Your task to perform on an android device: What's the news in Bangladesh? Image 0: 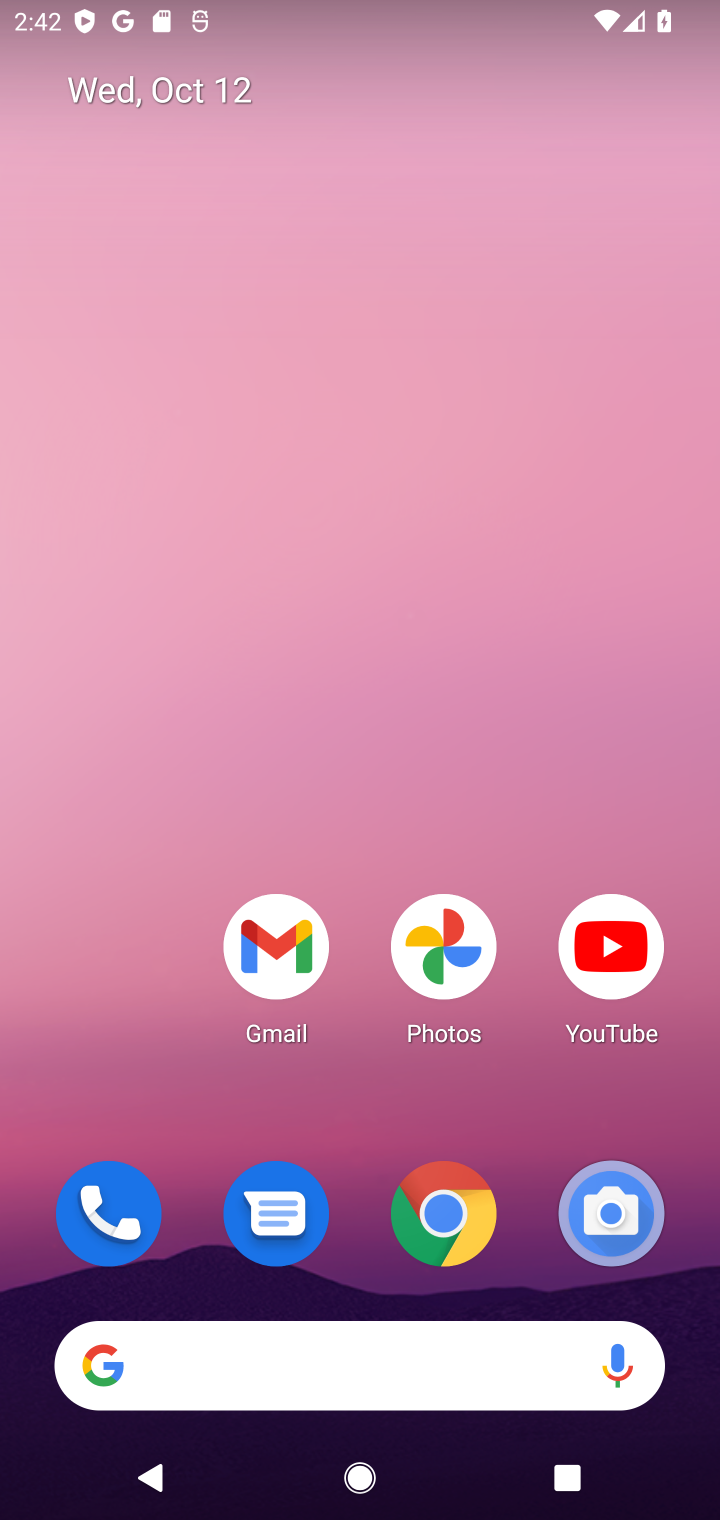
Step 0: click (398, 1361)
Your task to perform on an android device: What's the news in Bangladesh? Image 1: 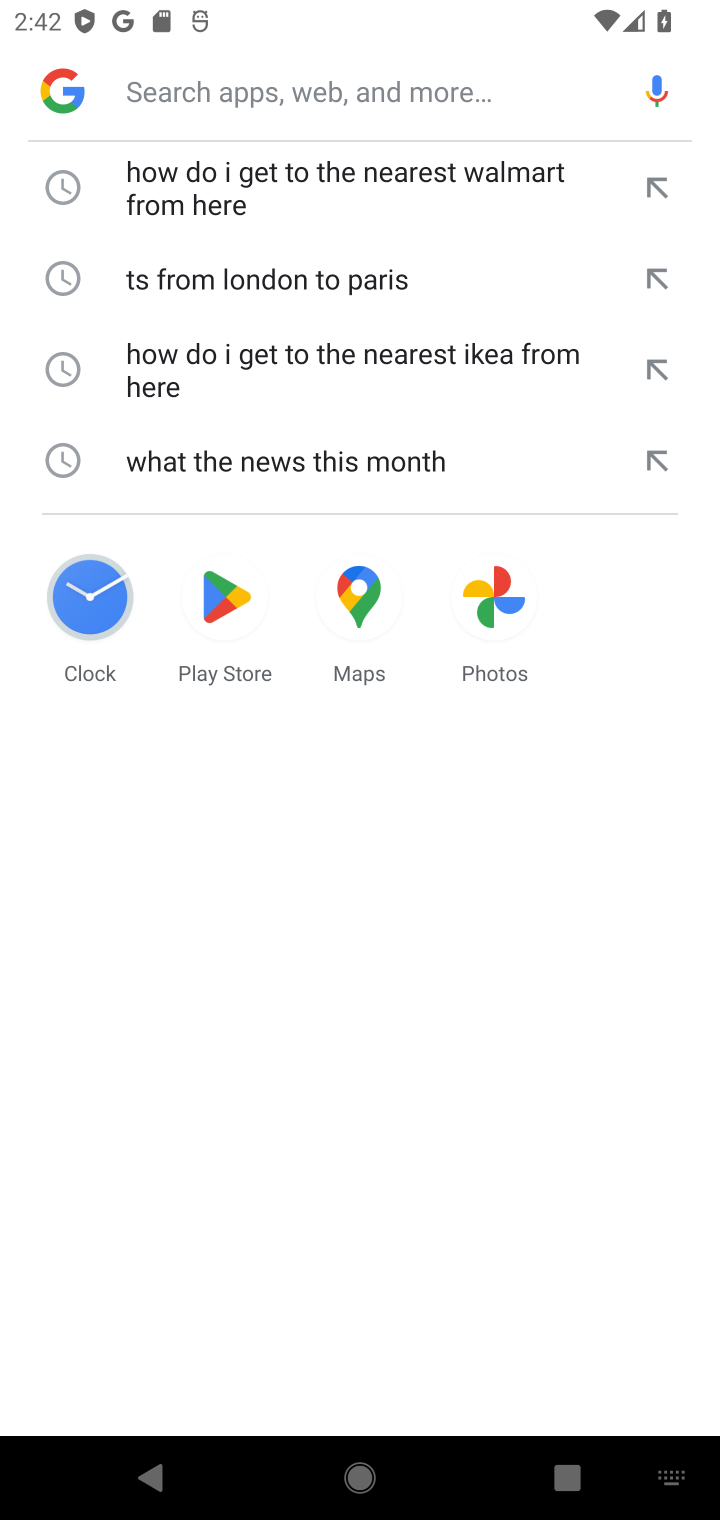
Step 1: click (258, 84)
Your task to perform on an android device: What's the news in Bangladesh? Image 2: 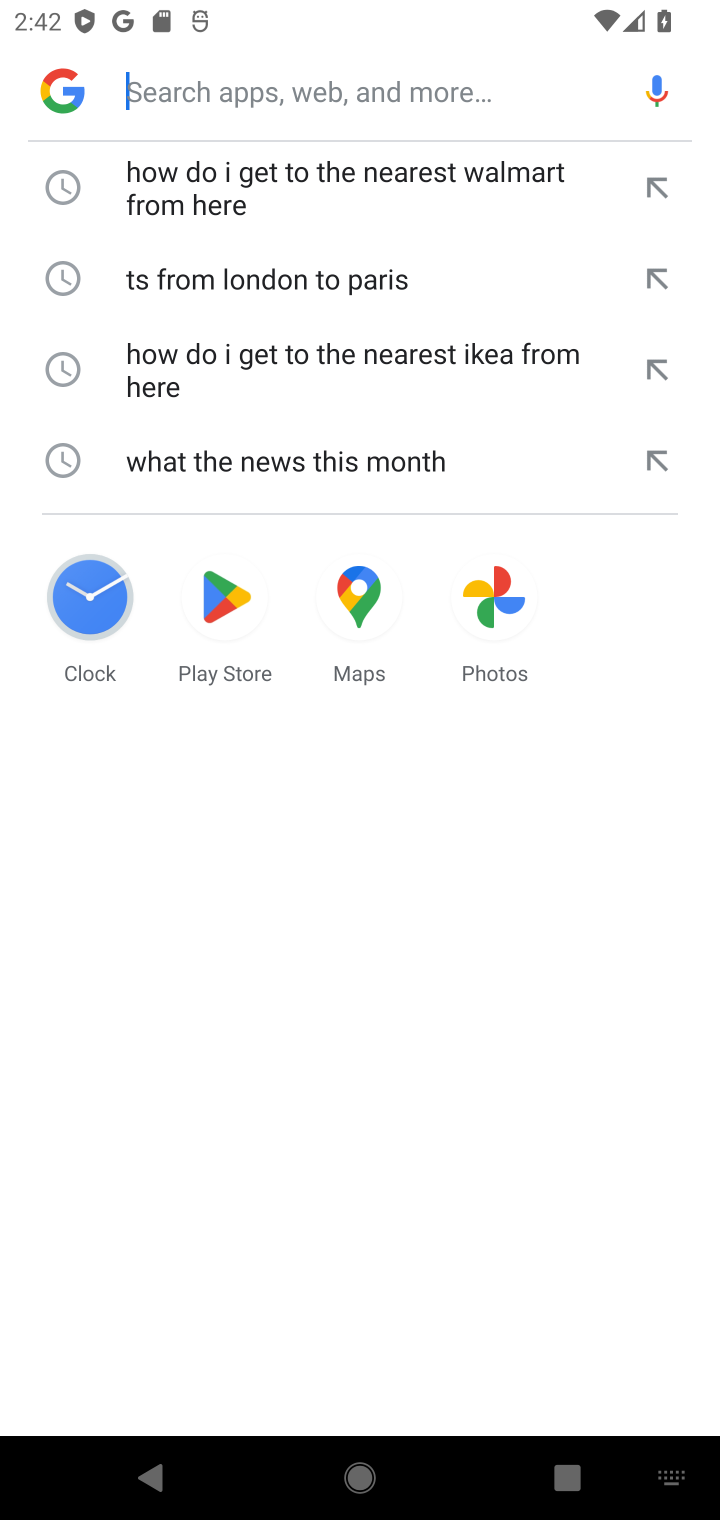
Step 2: type "What's the news in Bangladesh?"
Your task to perform on an android device: What's the news in Bangladesh? Image 3: 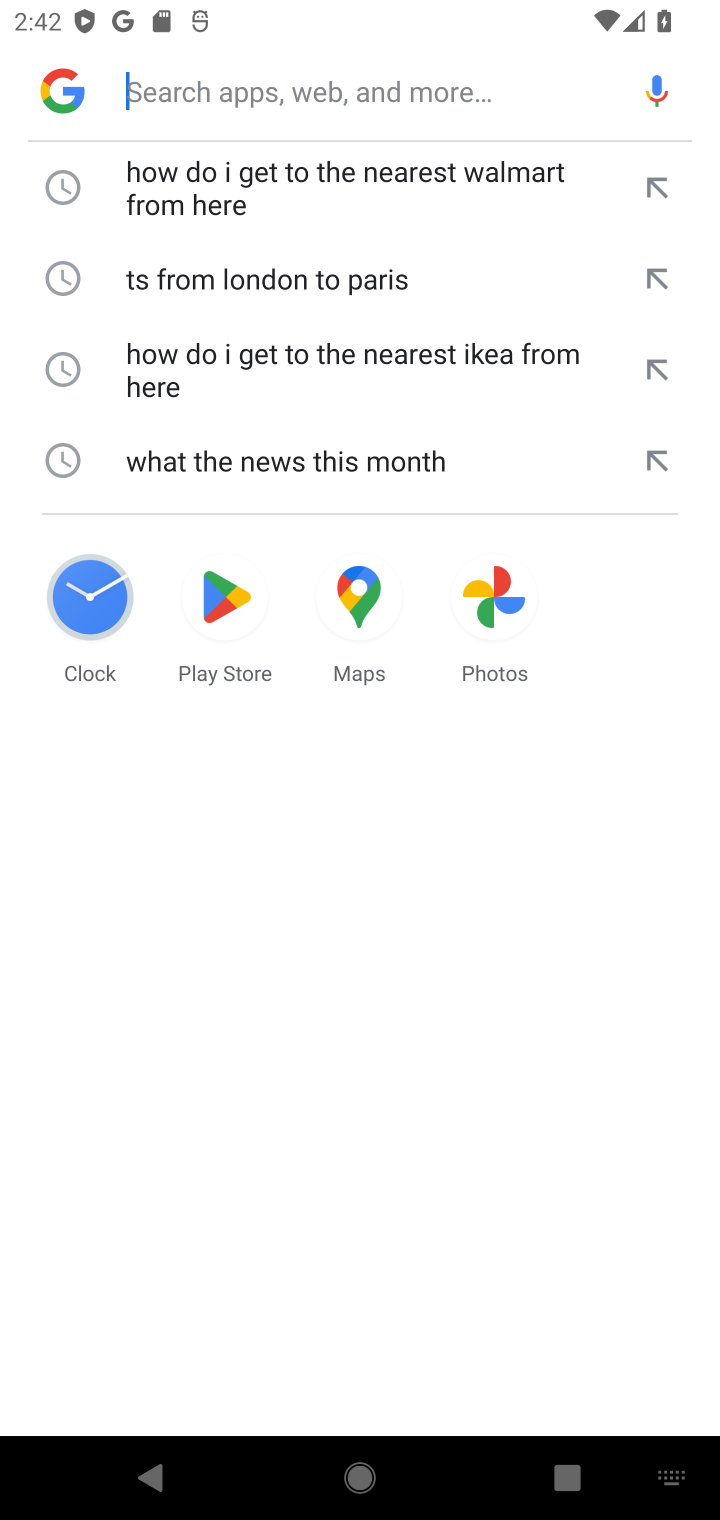
Step 3: click (417, 976)
Your task to perform on an android device: What's the news in Bangladesh? Image 4: 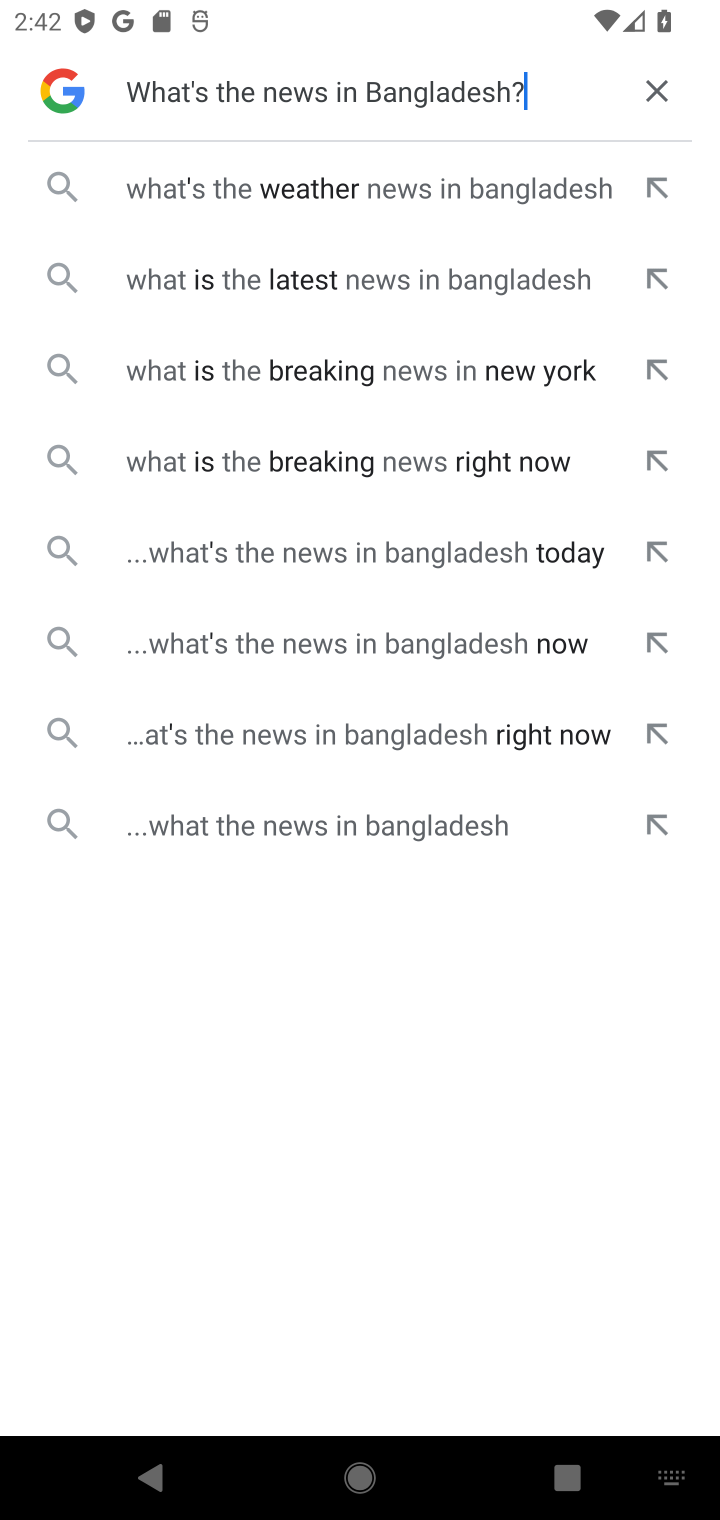
Step 4: click (251, 171)
Your task to perform on an android device: What's the news in Bangladesh? Image 5: 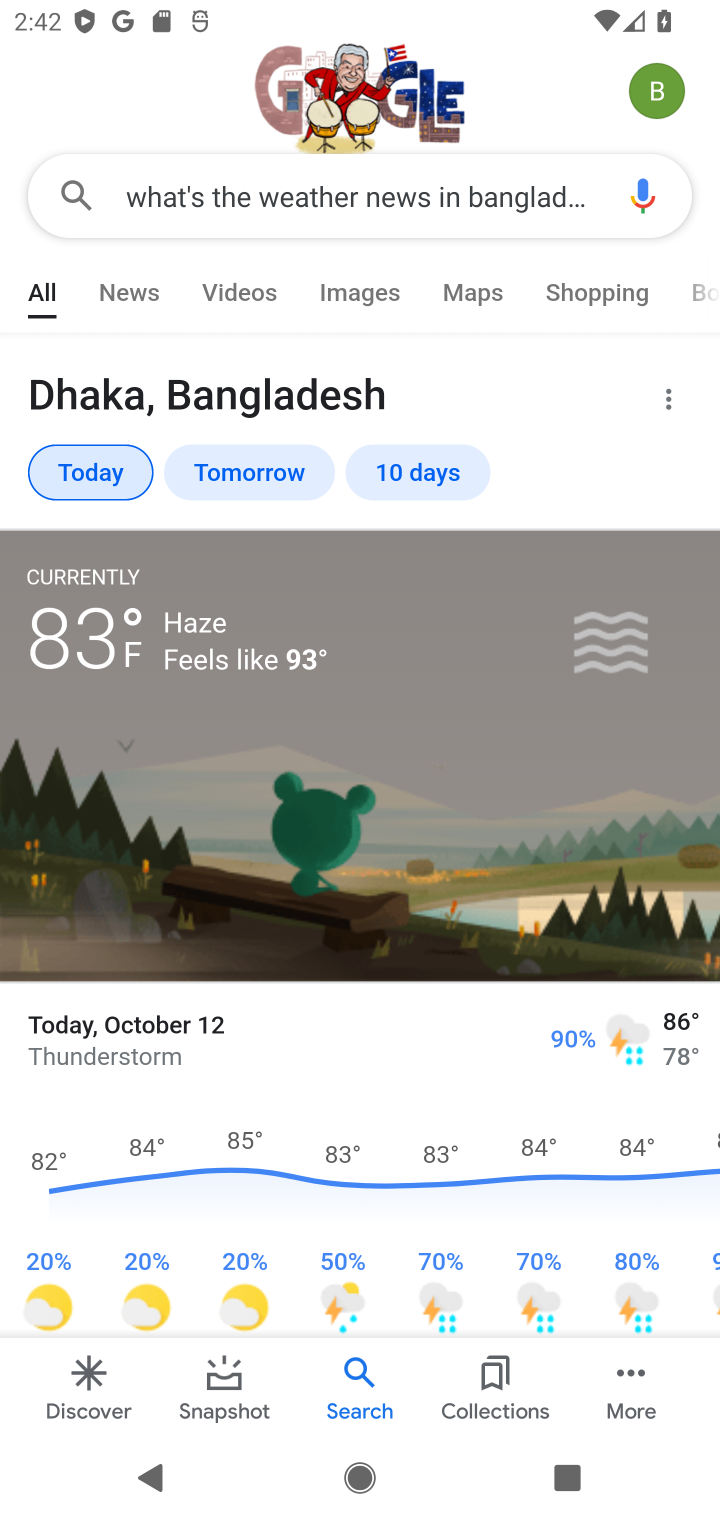
Step 5: task complete